Your task to perform on an android device: Do I have any events this weekend? Image 0: 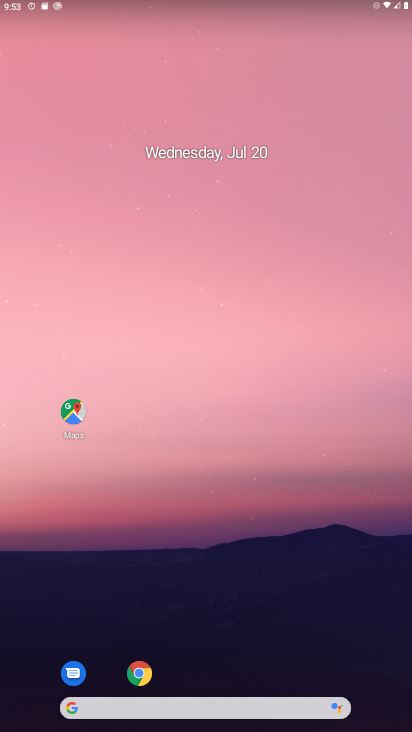
Step 0: drag from (328, 525) to (194, 90)
Your task to perform on an android device: Do I have any events this weekend? Image 1: 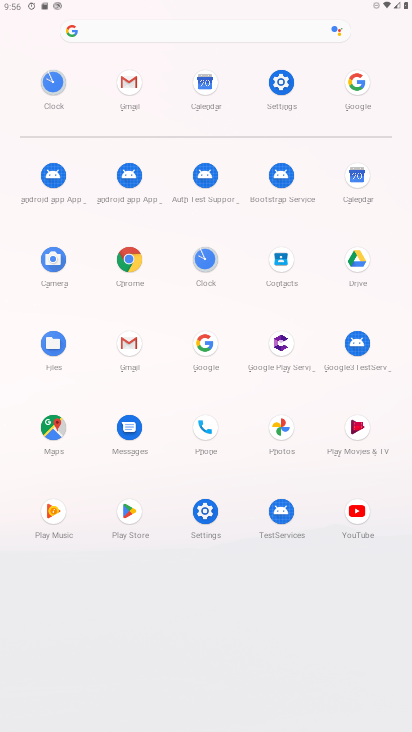
Step 1: click (351, 172)
Your task to perform on an android device: Do I have any events this weekend? Image 2: 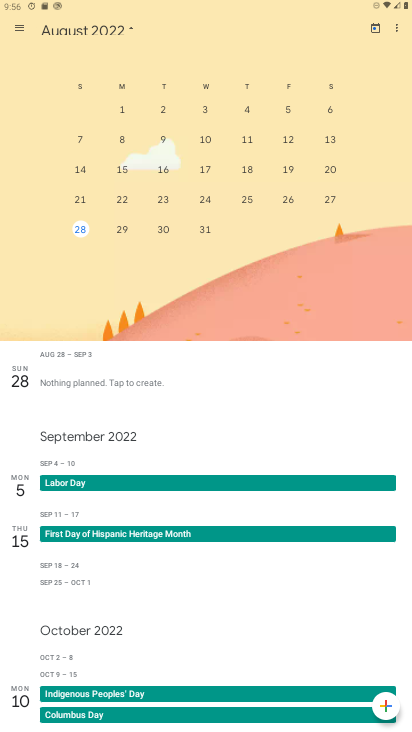
Step 2: task complete